Your task to perform on an android device: turn on data saver in the chrome app Image 0: 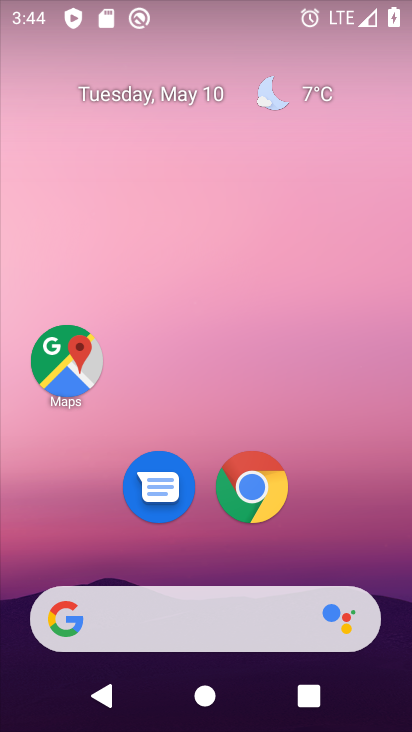
Step 0: click (252, 485)
Your task to perform on an android device: turn on data saver in the chrome app Image 1: 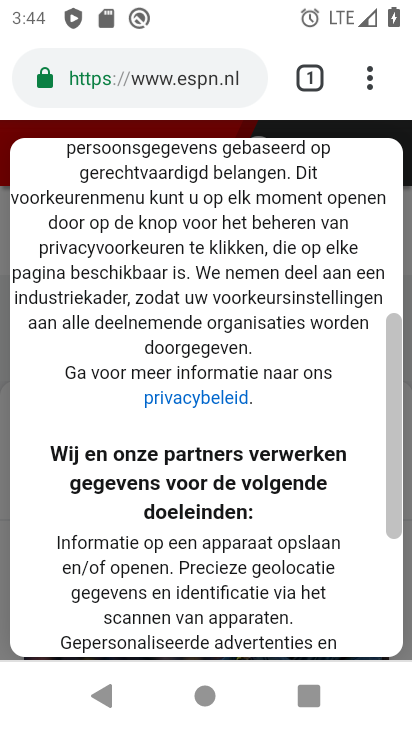
Step 1: drag from (369, 63) to (174, 557)
Your task to perform on an android device: turn on data saver in the chrome app Image 2: 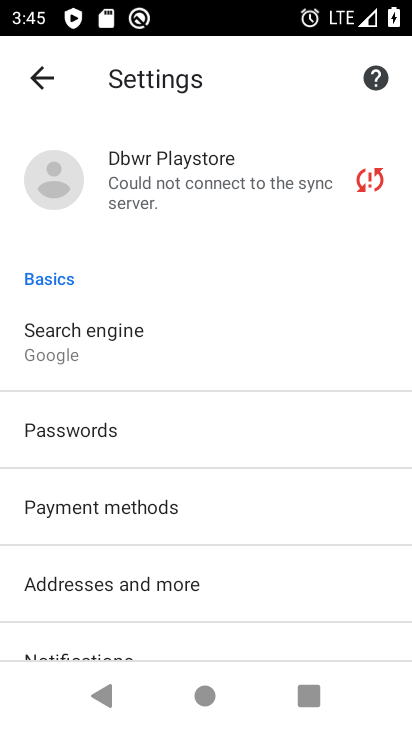
Step 2: drag from (162, 609) to (200, 185)
Your task to perform on an android device: turn on data saver in the chrome app Image 3: 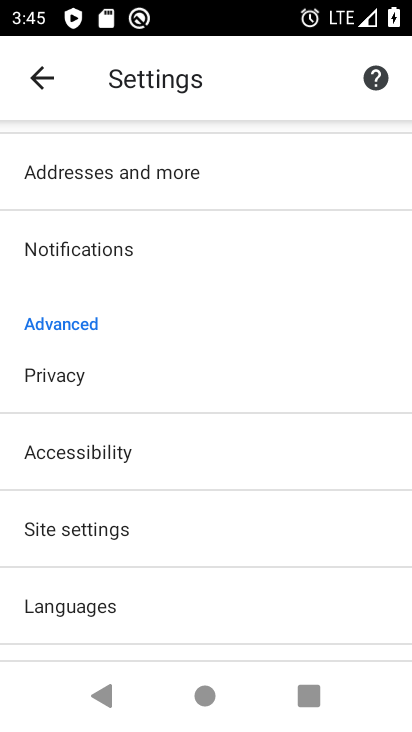
Step 3: drag from (150, 553) to (177, 234)
Your task to perform on an android device: turn on data saver in the chrome app Image 4: 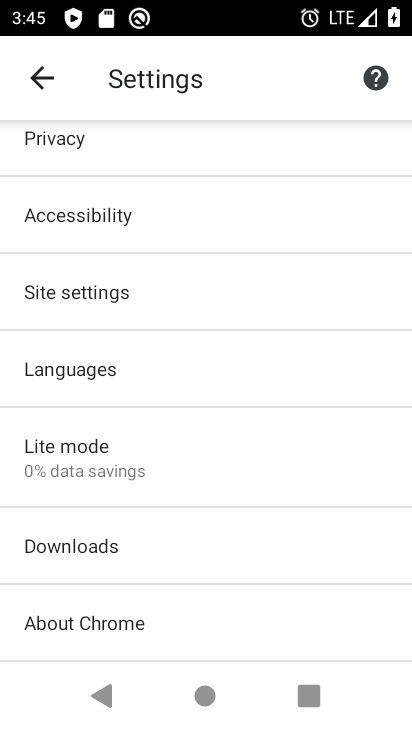
Step 4: click (137, 454)
Your task to perform on an android device: turn on data saver in the chrome app Image 5: 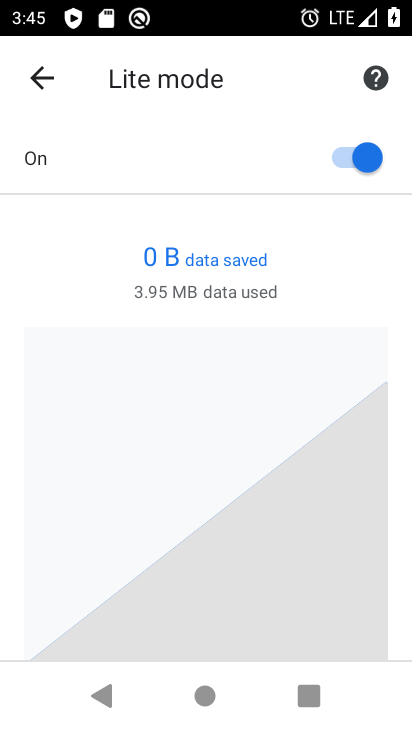
Step 5: task complete